Your task to perform on an android device: open a bookmark in the chrome app Image 0: 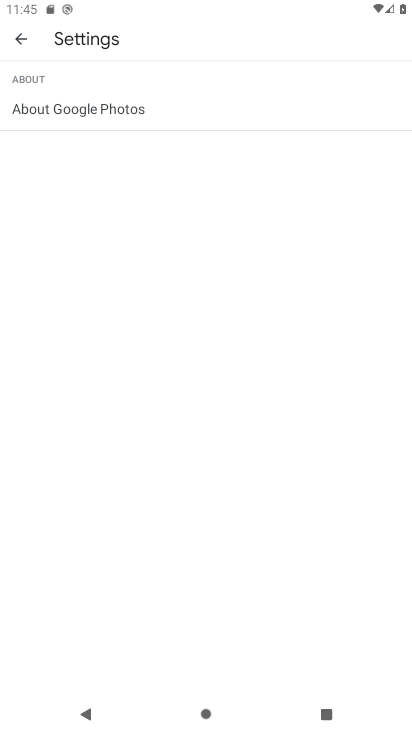
Step 0: press home button
Your task to perform on an android device: open a bookmark in the chrome app Image 1: 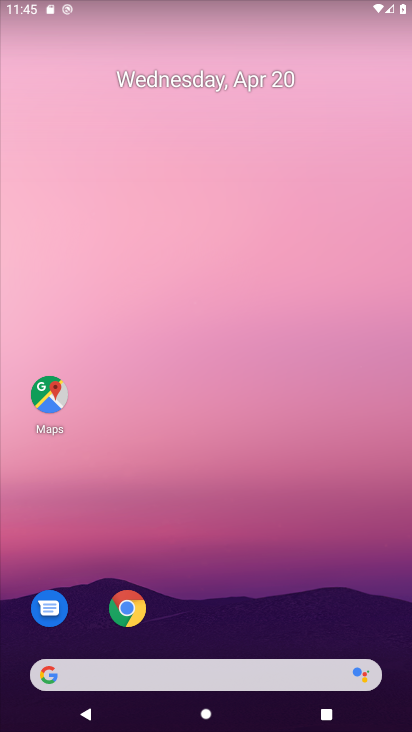
Step 1: click (127, 611)
Your task to perform on an android device: open a bookmark in the chrome app Image 2: 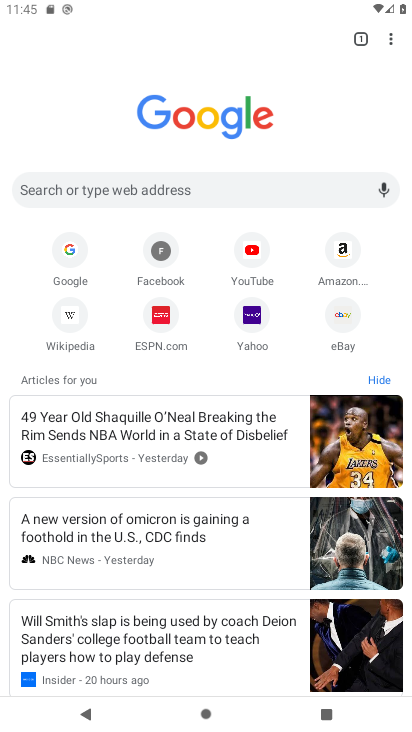
Step 2: click (390, 39)
Your task to perform on an android device: open a bookmark in the chrome app Image 3: 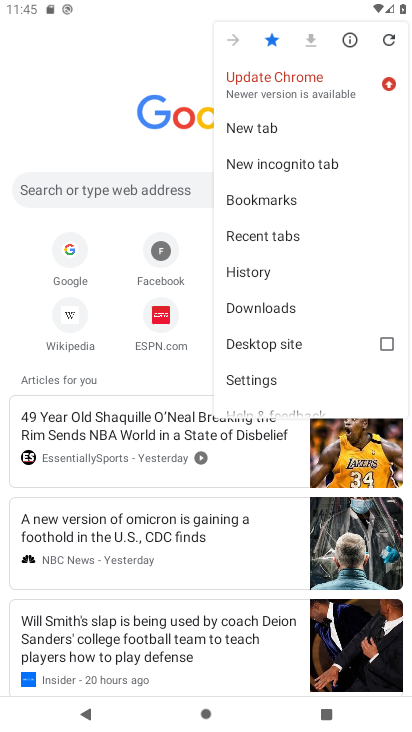
Step 3: click (267, 204)
Your task to perform on an android device: open a bookmark in the chrome app Image 4: 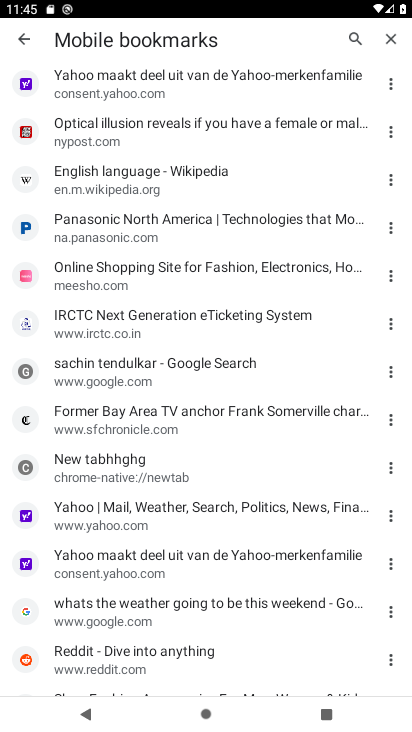
Step 4: click (174, 84)
Your task to perform on an android device: open a bookmark in the chrome app Image 5: 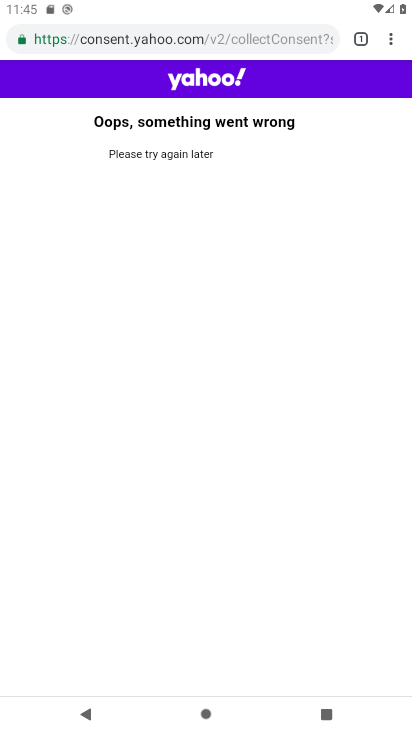
Step 5: task complete